Your task to perform on an android device: manage bookmarks in the chrome app Image 0: 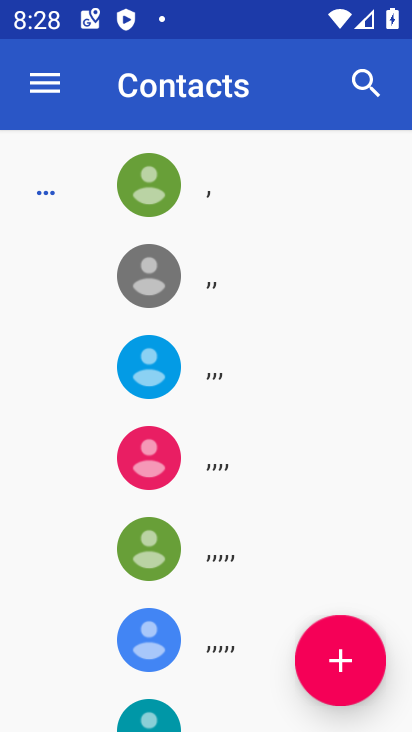
Step 0: press home button
Your task to perform on an android device: manage bookmarks in the chrome app Image 1: 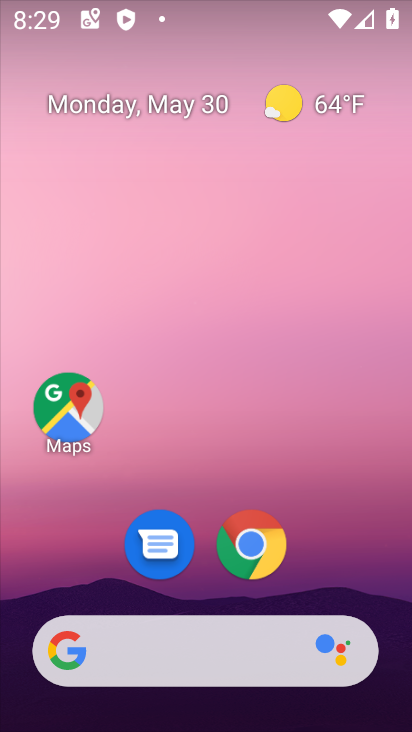
Step 1: click (231, 543)
Your task to perform on an android device: manage bookmarks in the chrome app Image 2: 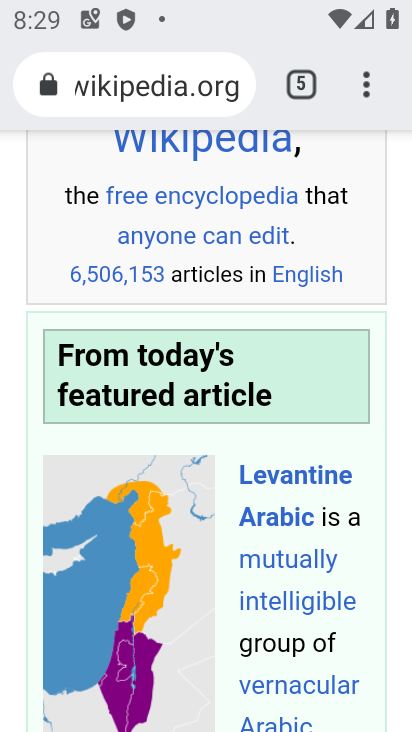
Step 2: click (367, 91)
Your task to perform on an android device: manage bookmarks in the chrome app Image 3: 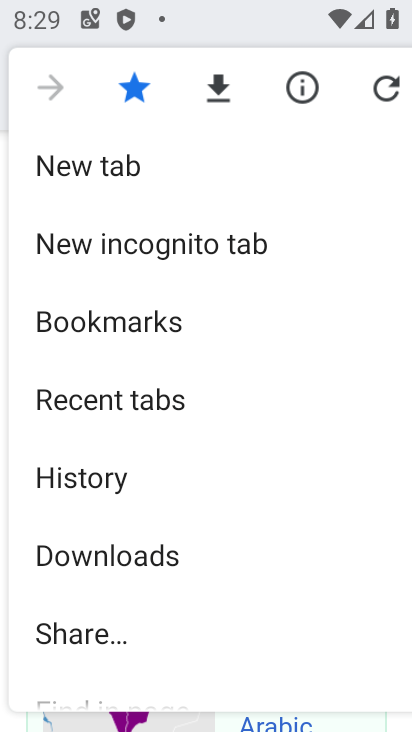
Step 3: click (146, 338)
Your task to perform on an android device: manage bookmarks in the chrome app Image 4: 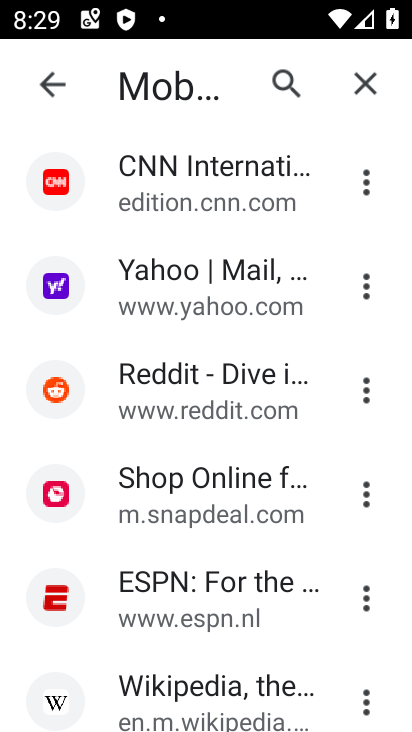
Step 4: click (360, 298)
Your task to perform on an android device: manage bookmarks in the chrome app Image 5: 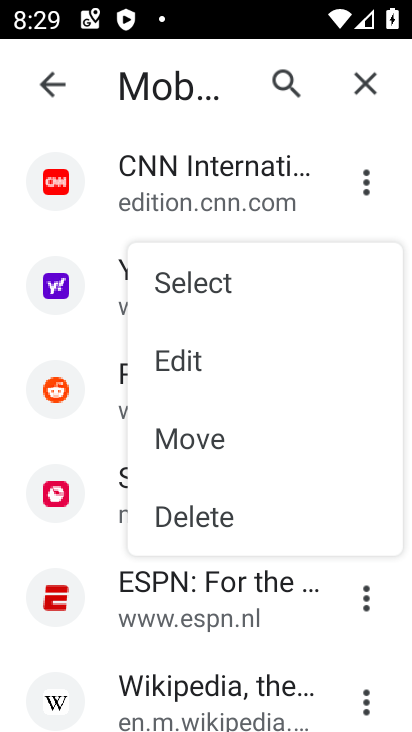
Step 5: click (195, 353)
Your task to perform on an android device: manage bookmarks in the chrome app Image 6: 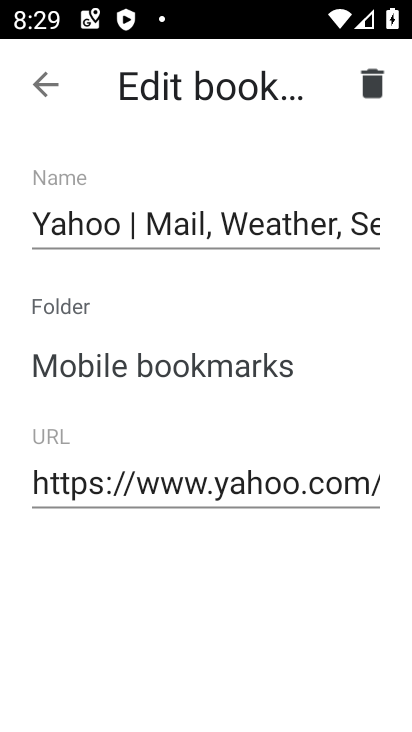
Step 6: task complete